Your task to perform on an android device: check android version Image 0: 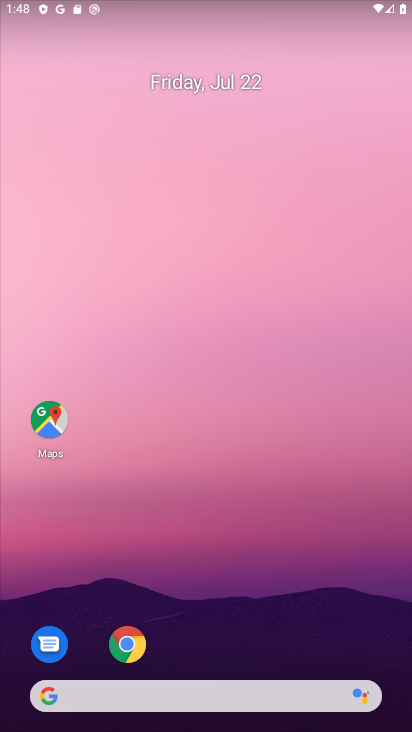
Step 0: drag from (203, 646) to (132, 331)
Your task to perform on an android device: check android version Image 1: 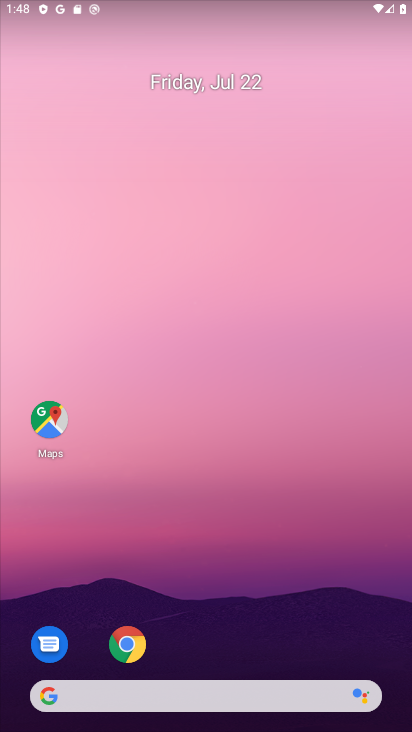
Step 1: drag from (250, 660) to (101, 113)
Your task to perform on an android device: check android version Image 2: 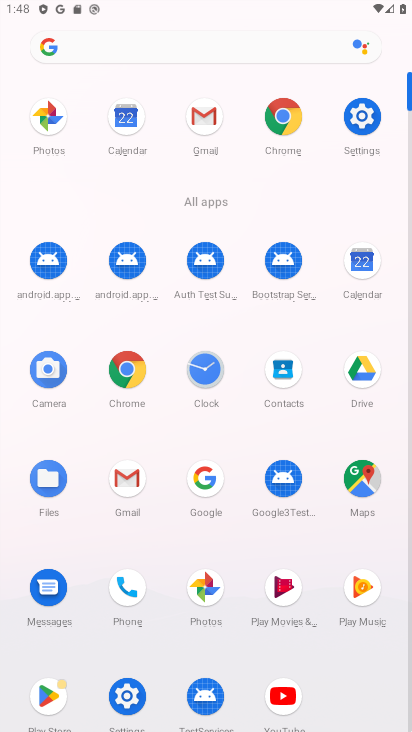
Step 2: click (366, 109)
Your task to perform on an android device: check android version Image 3: 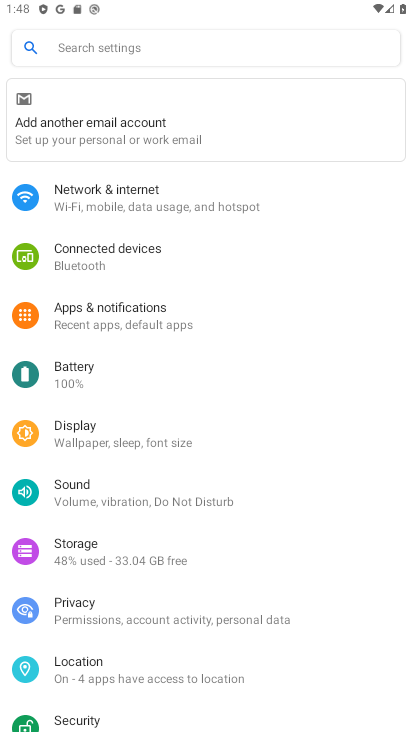
Step 3: drag from (242, 697) to (167, 110)
Your task to perform on an android device: check android version Image 4: 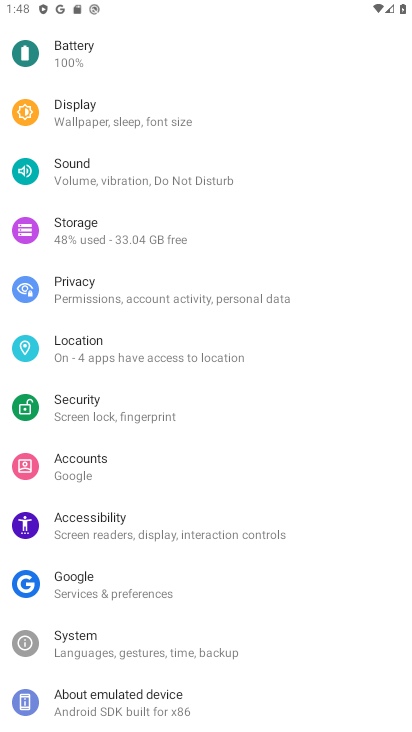
Step 4: click (169, 692)
Your task to perform on an android device: check android version Image 5: 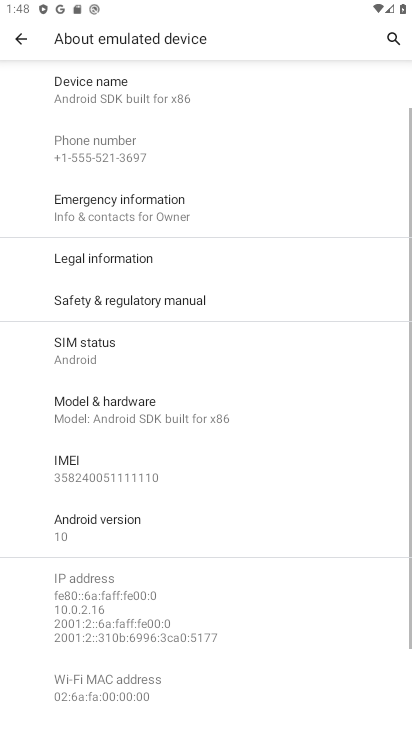
Step 5: click (157, 543)
Your task to perform on an android device: check android version Image 6: 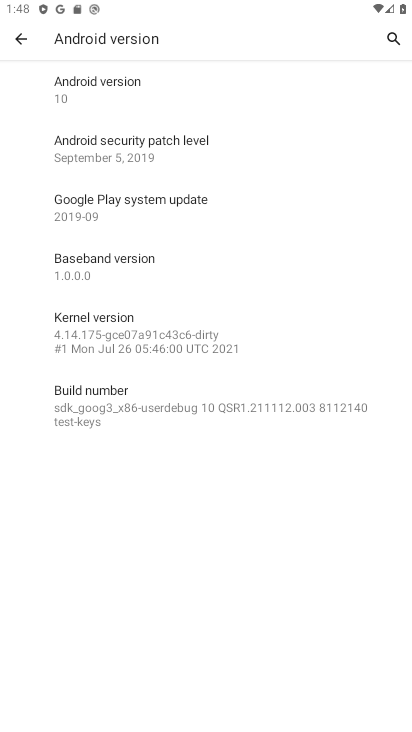
Step 6: task complete